Your task to perform on an android device: see creations saved in the google photos Image 0: 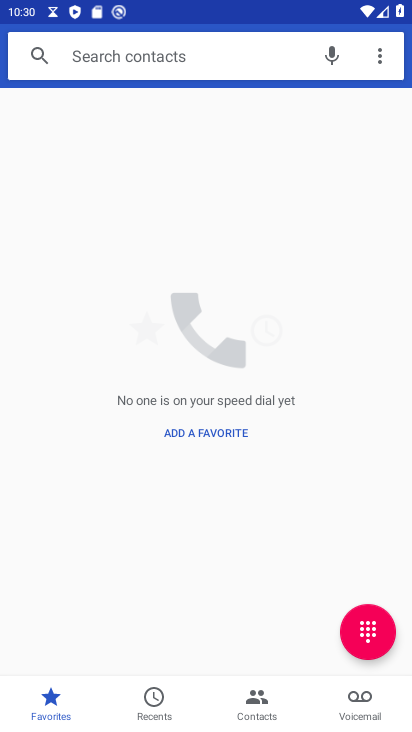
Step 0: press back button
Your task to perform on an android device: see creations saved in the google photos Image 1: 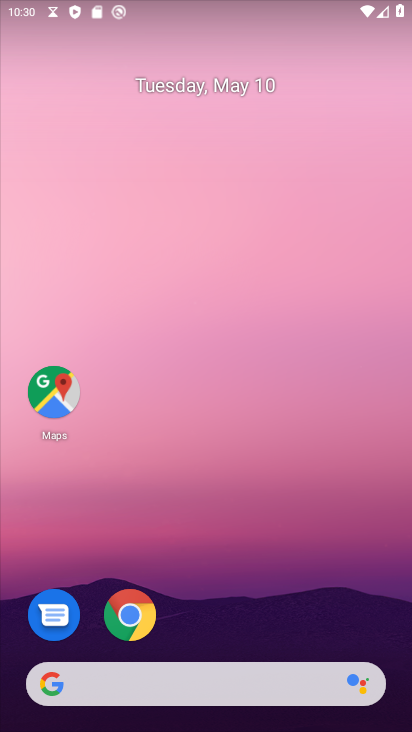
Step 1: drag from (236, 542) to (210, 186)
Your task to perform on an android device: see creations saved in the google photos Image 2: 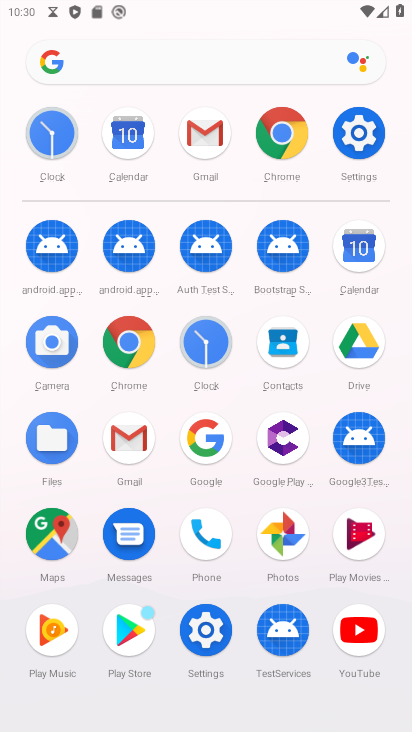
Step 2: click (284, 533)
Your task to perform on an android device: see creations saved in the google photos Image 3: 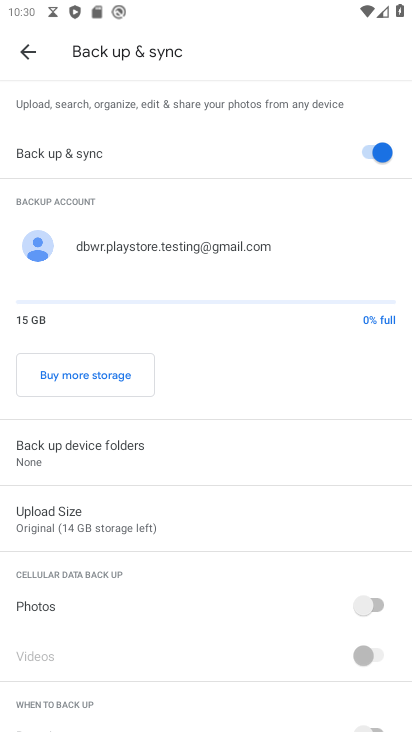
Step 3: drag from (186, 588) to (205, 493)
Your task to perform on an android device: see creations saved in the google photos Image 4: 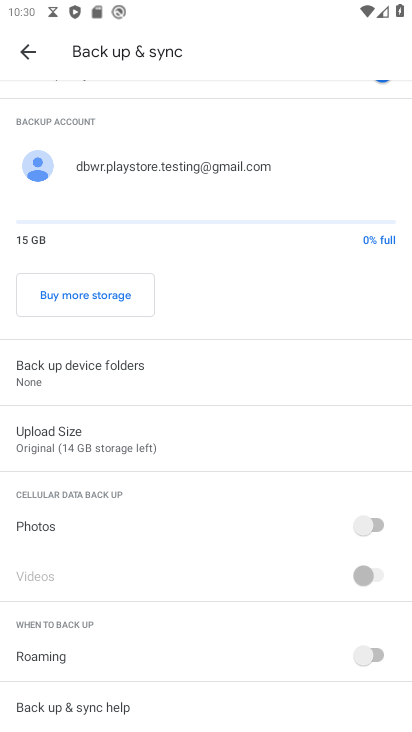
Step 4: drag from (133, 642) to (193, 511)
Your task to perform on an android device: see creations saved in the google photos Image 5: 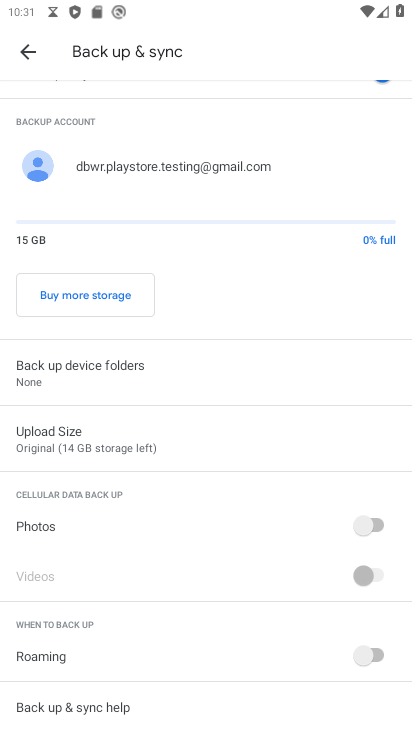
Step 5: press back button
Your task to perform on an android device: see creations saved in the google photos Image 6: 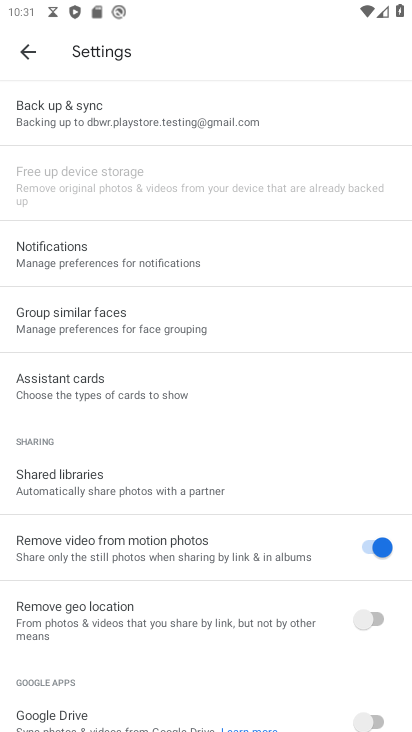
Step 6: press back button
Your task to perform on an android device: see creations saved in the google photos Image 7: 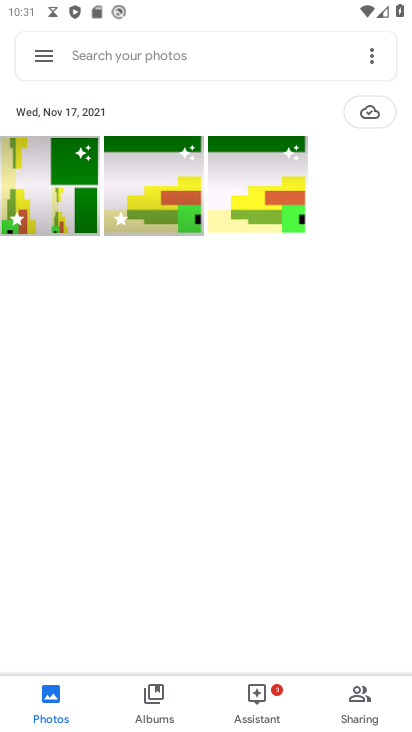
Step 7: click (166, 60)
Your task to perform on an android device: see creations saved in the google photos Image 8: 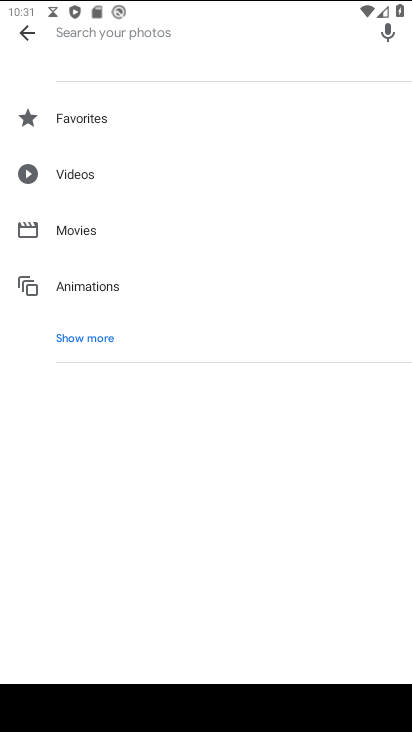
Step 8: click (71, 341)
Your task to perform on an android device: see creations saved in the google photos Image 9: 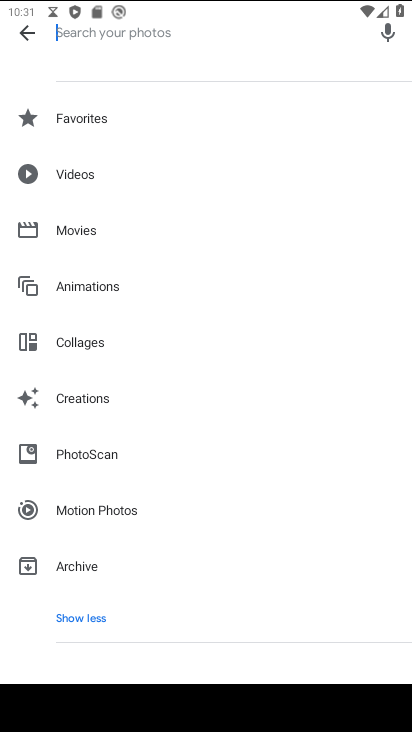
Step 9: click (75, 396)
Your task to perform on an android device: see creations saved in the google photos Image 10: 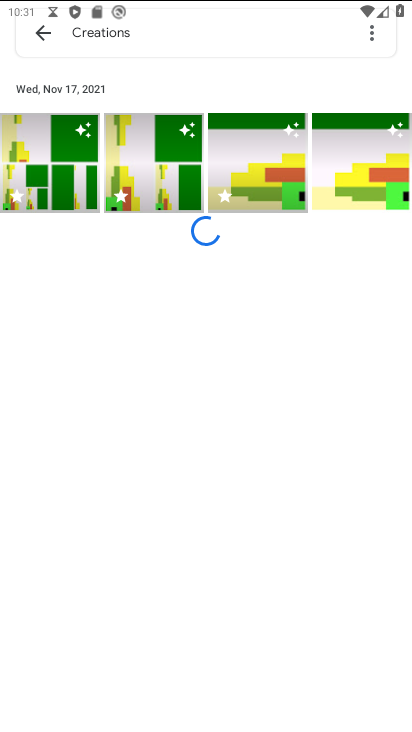
Step 10: click (179, 33)
Your task to perform on an android device: see creations saved in the google photos Image 11: 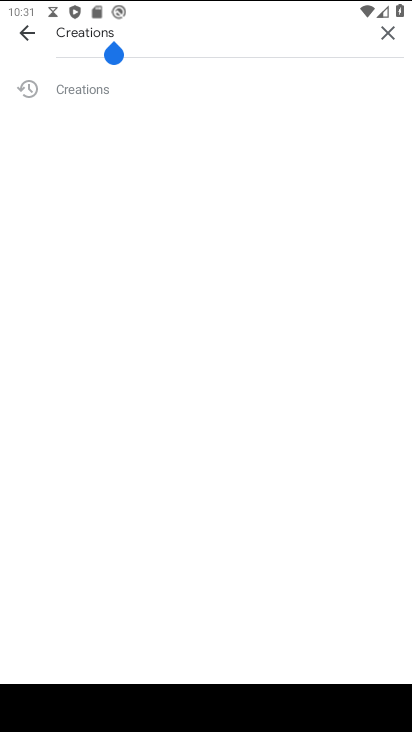
Step 11: click (97, 85)
Your task to perform on an android device: see creations saved in the google photos Image 12: 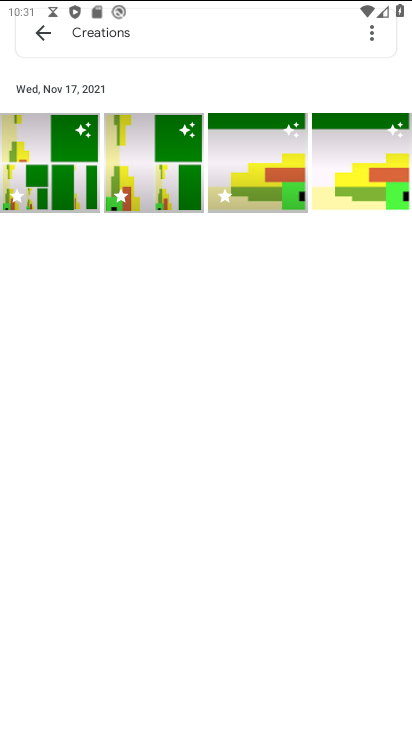
Step 12: click (61, 163)
Your task to perform on an android device: see creations saved in the google photos Image 13: 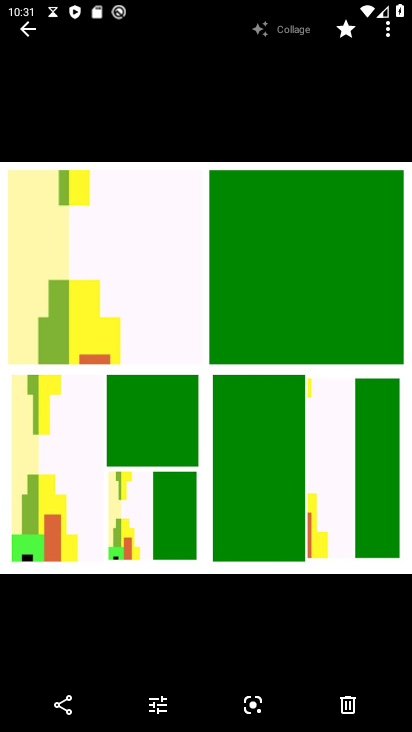
Step 13: click (276, 28)
Your task to perform on an android device: see creations saved in the google photos Image 14: 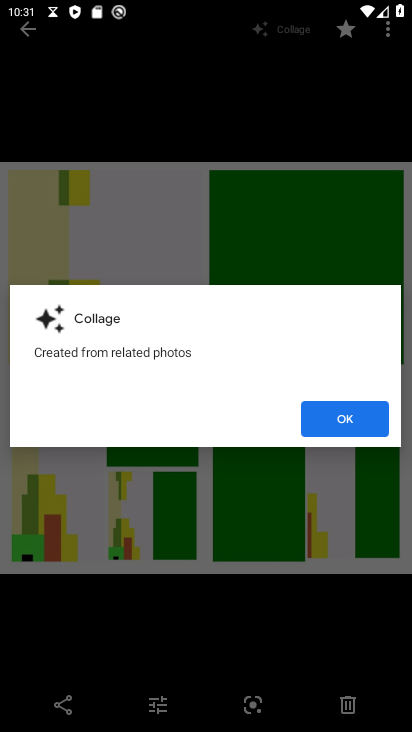
Step 14: click (368, 424)
Your task to perform on an android device: see creations saved in the google photos Image 15: 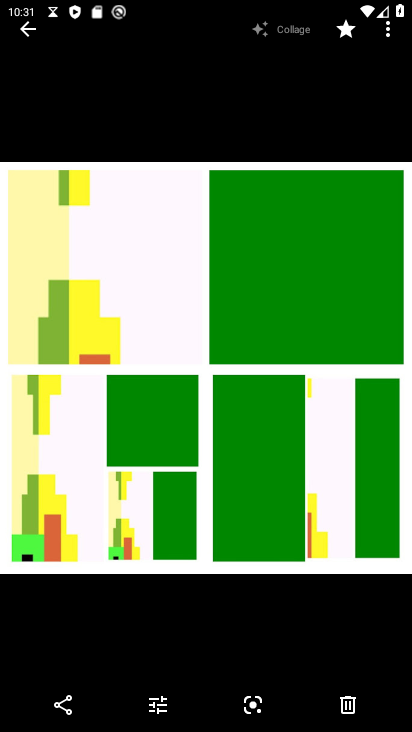
Step 15: click (345, 32)
Your task to perform on an android device: see creations saved in the google photos Image 16: 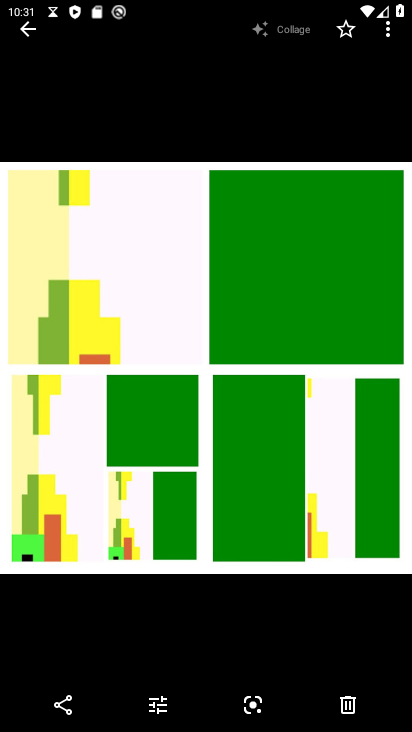
Step 16: click (345, 32)
Your task to perform on an android device: see creations saved in the google photos Image 17: 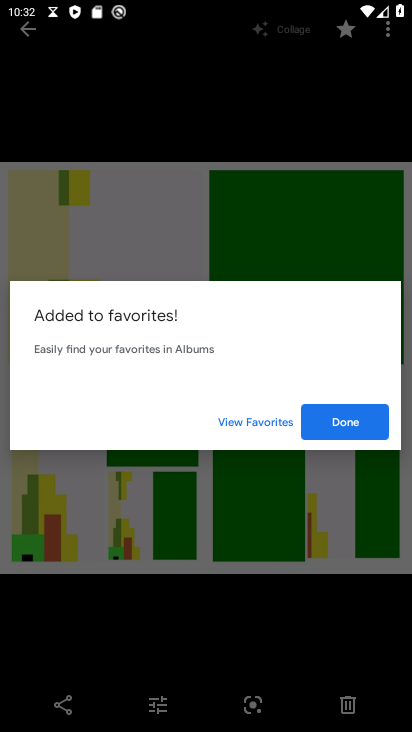
Step 17: click (378, 30)
Your task to perform on an android device: see creations saved in the google photos Image 18: 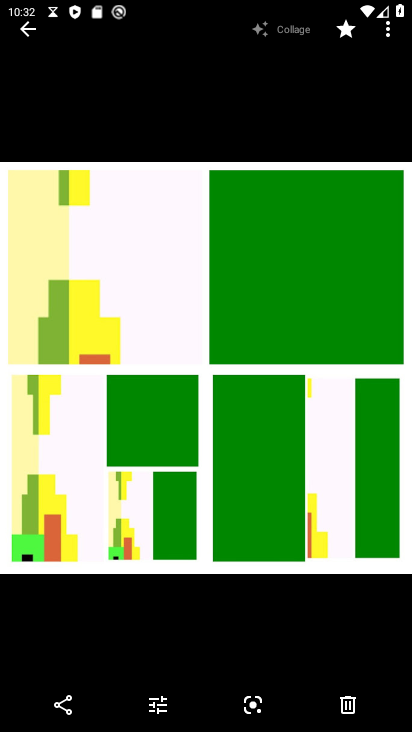
Step 18: click (387, 32)
Your task to perform on an android device: see creations saved in the google photos Image 19: 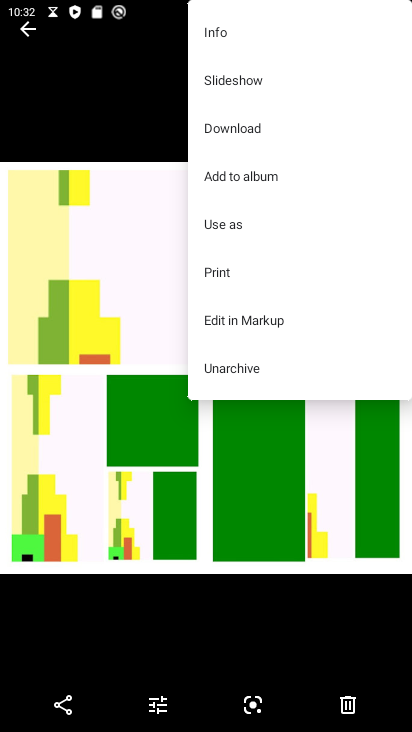
Step 19: click (214, 371)
Your task to perform on an android device: see creations saved in the google photos Image 20: 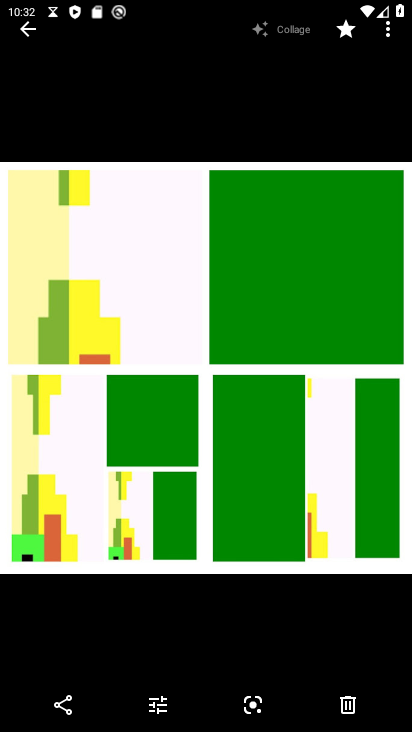
Step 20: task complete